Your task to perform on an android device: delete browsing data in the chrome app Image 0: 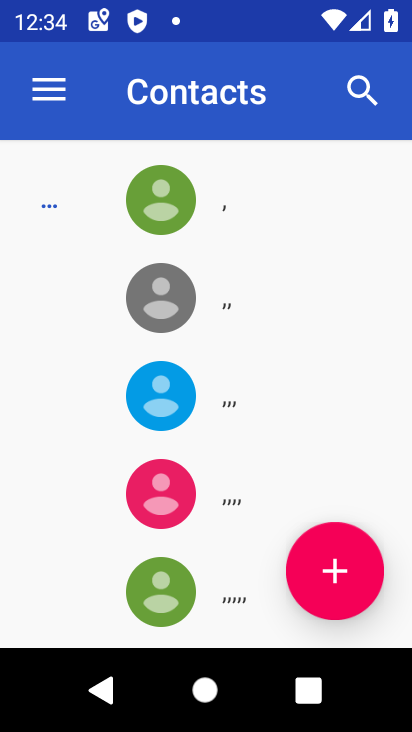
Step 0: press home button
Your task to perform on an android device: delete browsing data in the chrome app Image 1: 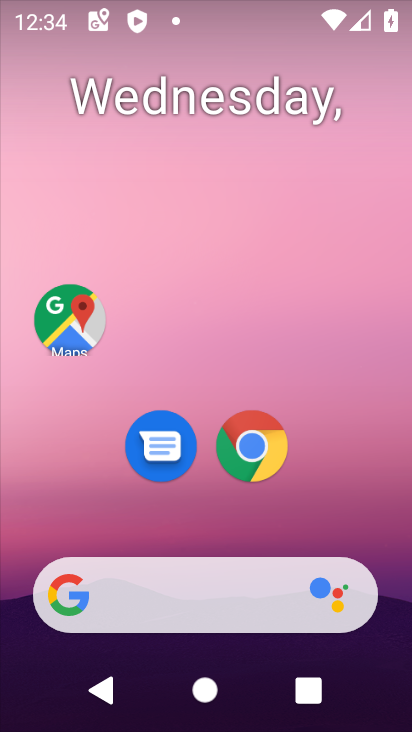
Step 1: drag from (208, 516) to (202, 144)
Your task to perform on an android device: delete browsing data in the chrome app Image 2: 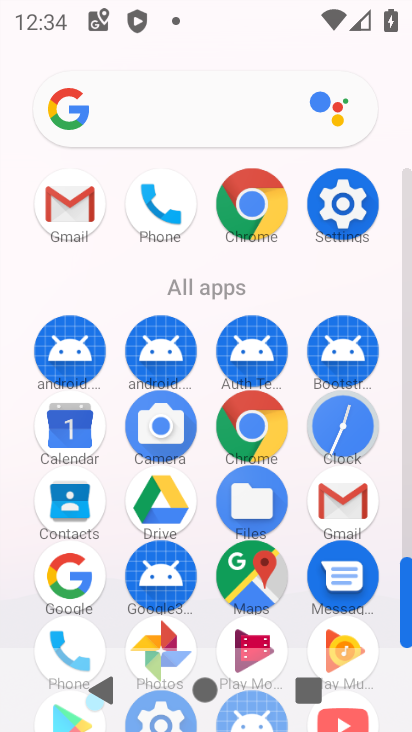
Step 2: drag from (202, 292) to (220, 86)
Your task to perform on an android device: delete browsing data in the chrome app Image 3: 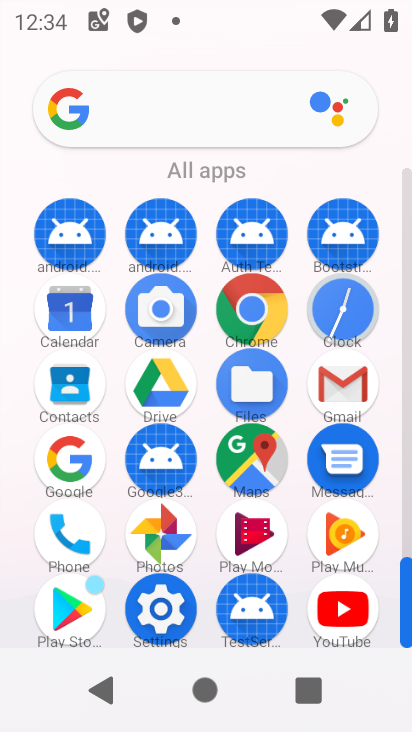
Step 3: click (267, 303)
Your task to perform on an android device: delete browsing data in the chrome app Image 4: 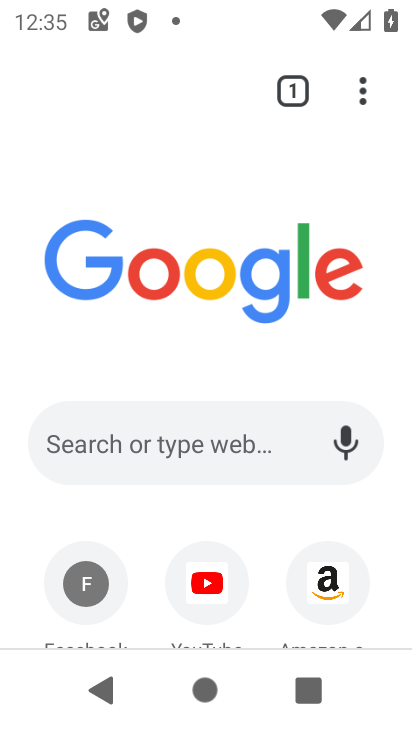
Step 4: click (361, 103)
Your task to perform on an android device: delete browsing data in the chrome app Image 5: 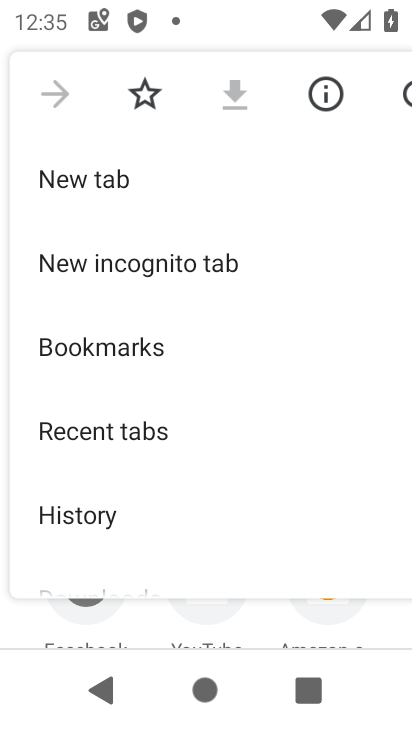
Step 5: click (112, 520)
Your task to perform on an android device: delete browsing data in the chrome app Image 6: 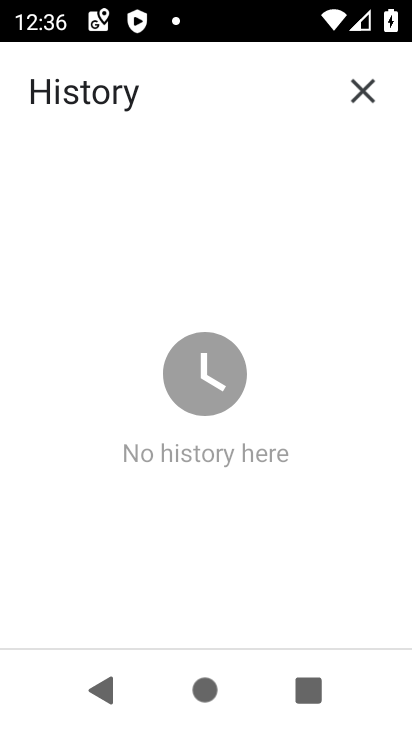
Step 6: task complete